Your task to perform on an android device: open sync settings in chrome Image 0: 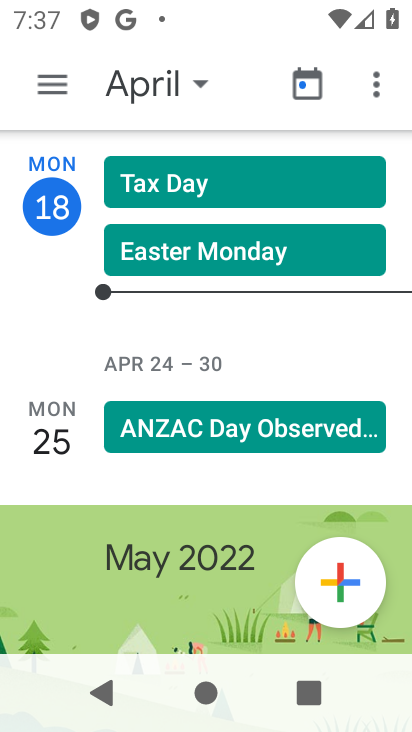
Step 0: drag from (225, 595) to (263, 304)
Your task to perform on an android device: open sync settings in chrome Image 1: 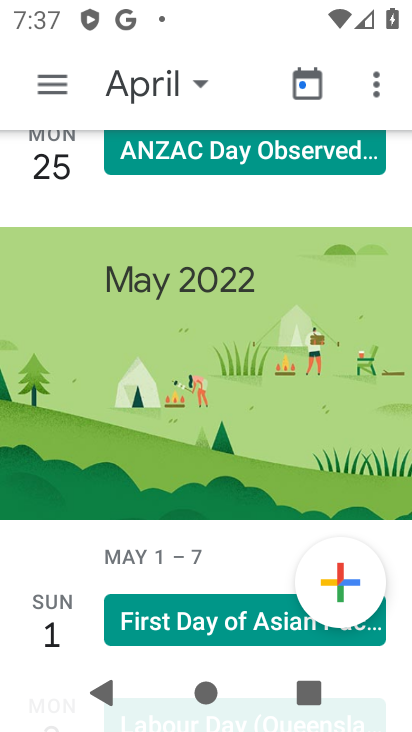
Step 1: press home button
Your task to perform on an android device: open sync settings in chrome Image 2: 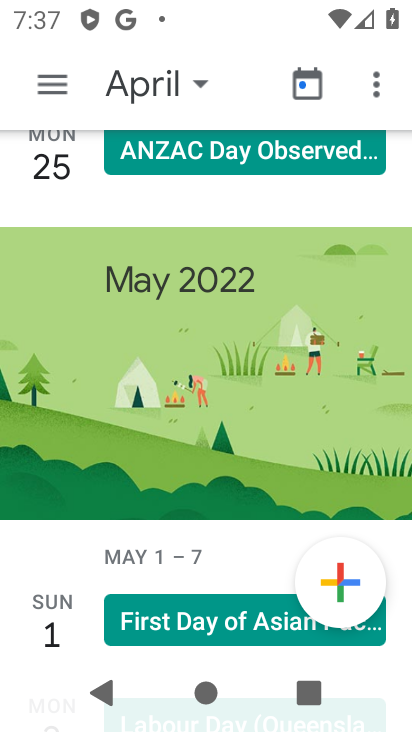
Step 2: press home button
Your task to perform on an android device: open sync settings in chrome Image 3: 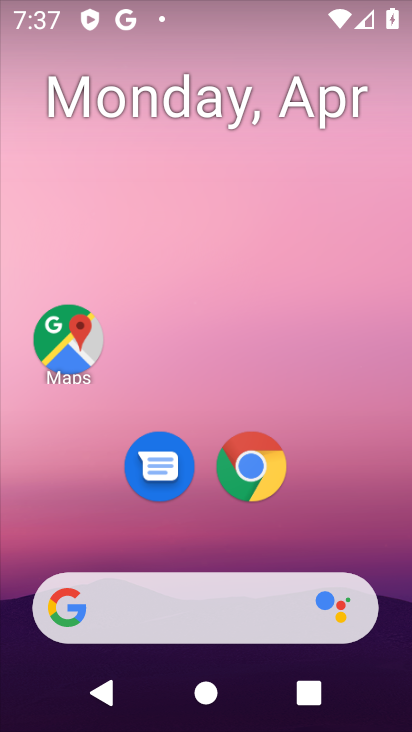
Step 3: click (245, 461)
Your task to perform on an android device: open sync settings in chrome Image 4: 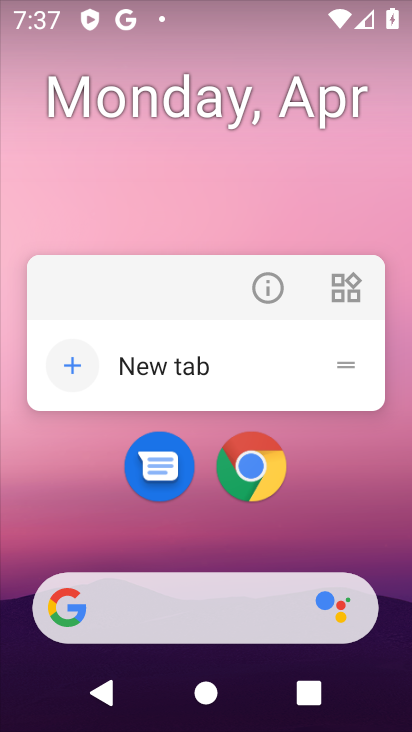
Step 4: click (259, 285)
Your task to perform on an android device: open sync settings in chrome Image 5: 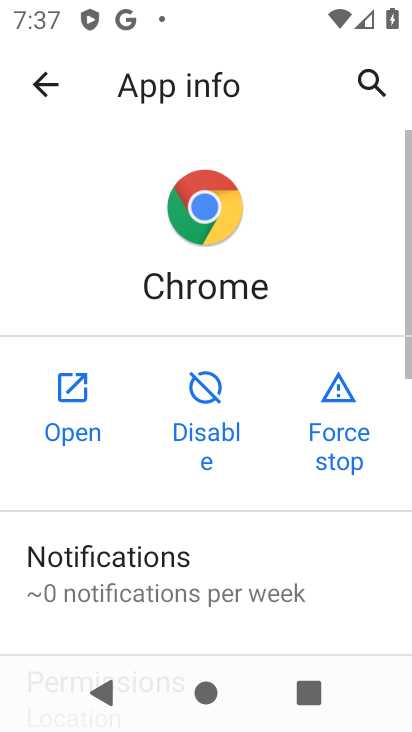
Step 5: click (71, 412)
Your task to perform on an android device: open sync settings in chrome Image 6: 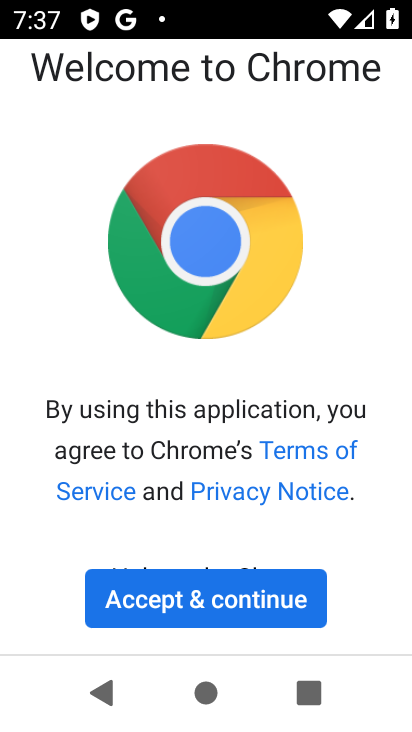
Step 6: click (246, 588)
Your task to perform on an android device: open sync settings in chrome Image 7: 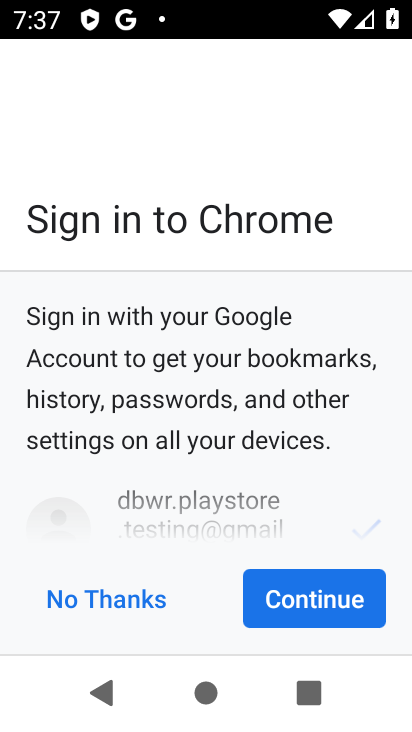
Step 7: click (160, 587)
Your task to perform on an android device: open sync settings in chrome Image 8: 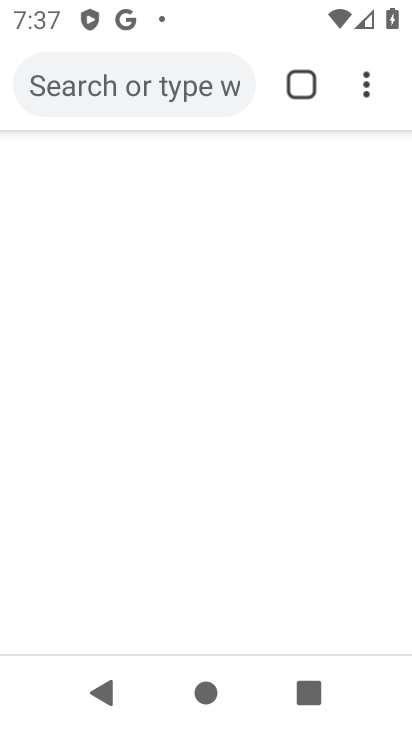
Step 8: click (366, 82)
Your task to perform on an android device: open sync settings in chrome Image 9: 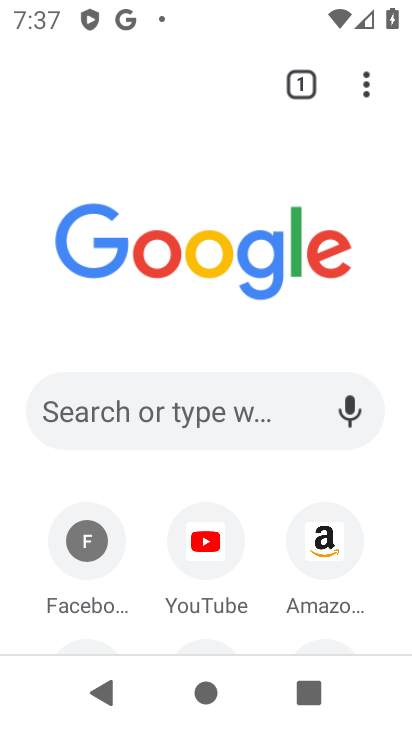
Step 9: drag from (374, 90) to (137, 518)
Your task to perform on an android device: open sync settings in chrome Image 10: 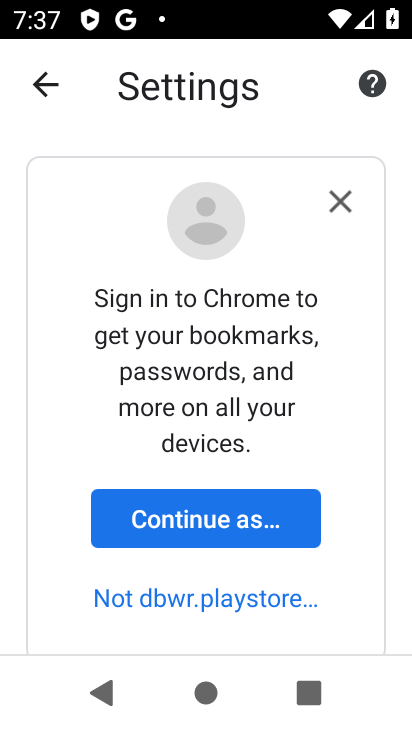
Step 10: drag from (240, 522) to (324, 6)
Your task to perform on an android device: open sync settings in chrome Image 11: 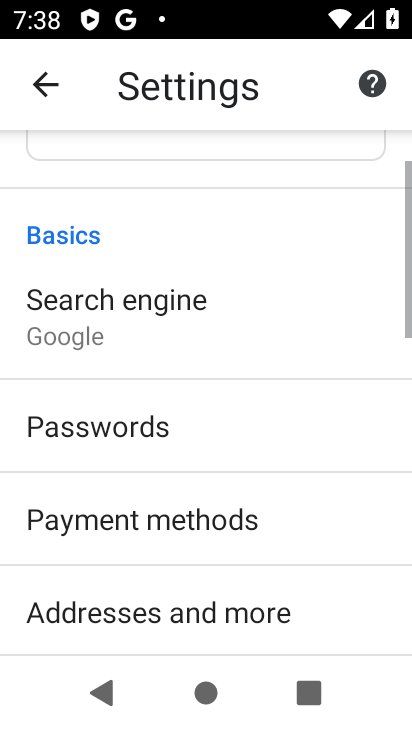
Step 11: drag from (169, 568) to (325, 74)
Your task to perform on an android device: open sync settings in chrome Image 12: 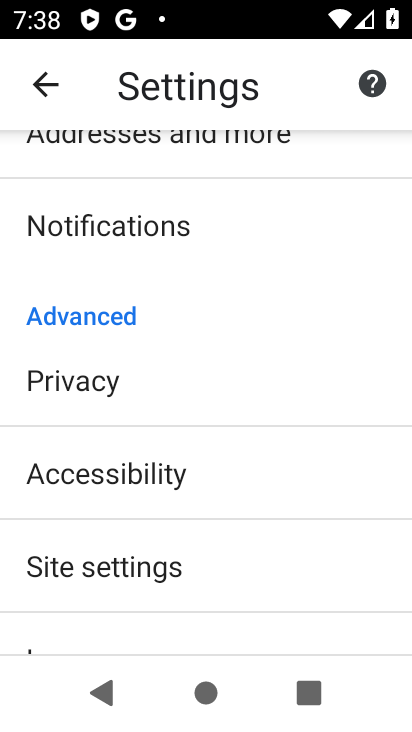
Step 12: click (146, 568)
Your task to perform on an android device: open sync settings in chrome Image 13: 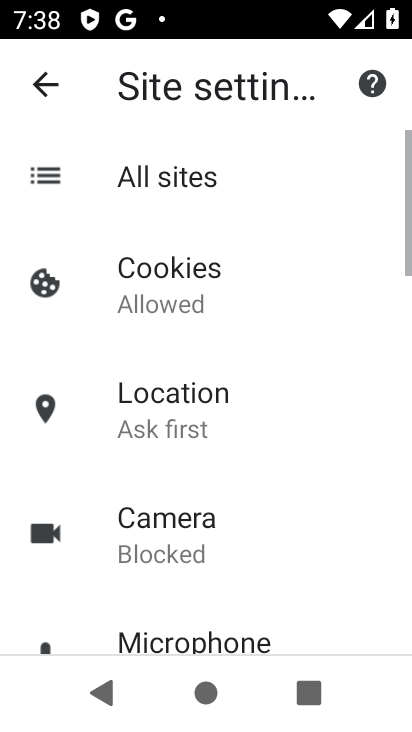
Step 13: drag from (155, 528) to (260, 55)
Your task to perform on an android device: open sync settings in chrome Image 14: 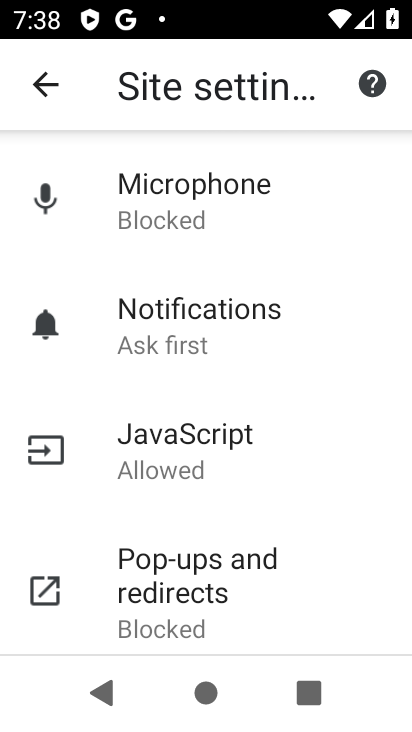
Step 14: drag from (214, 575) to (299, 74)
Your task to perform on an android device: open sync settings in chrome Image 15: 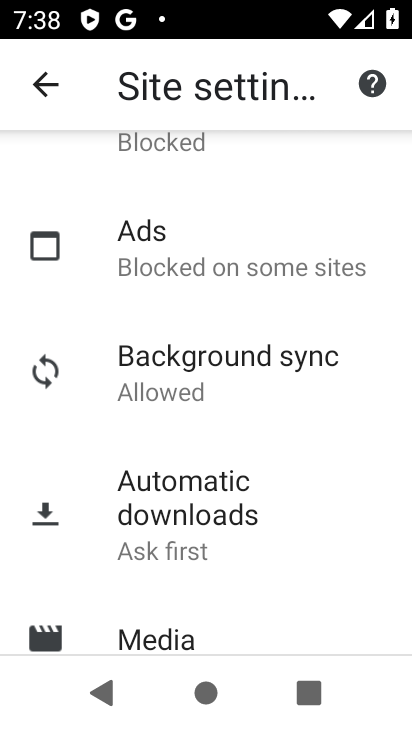
Step 15: click (240, 401)
Your task to perform on an android device: open sync settings in chrome Image 16: 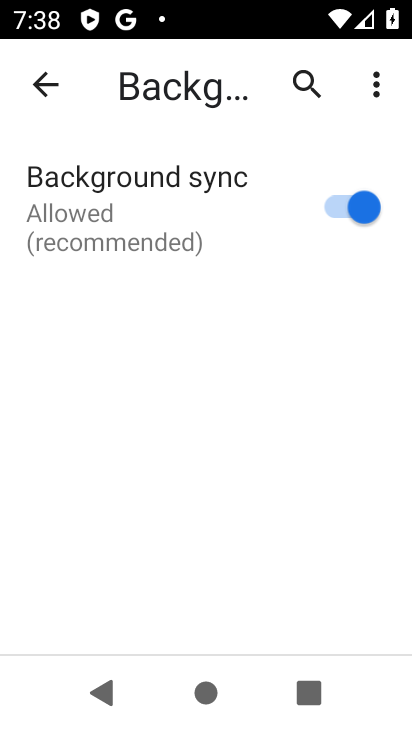
Step 16: task complete